Your task to perform on an android device: When is my next appointment? Image 0: 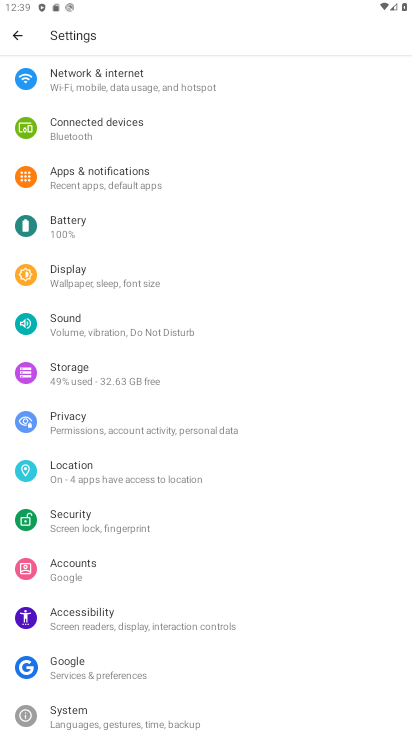
Step 0: press home button
Your task to perform on an android device: When is my next appointment? Image 1: 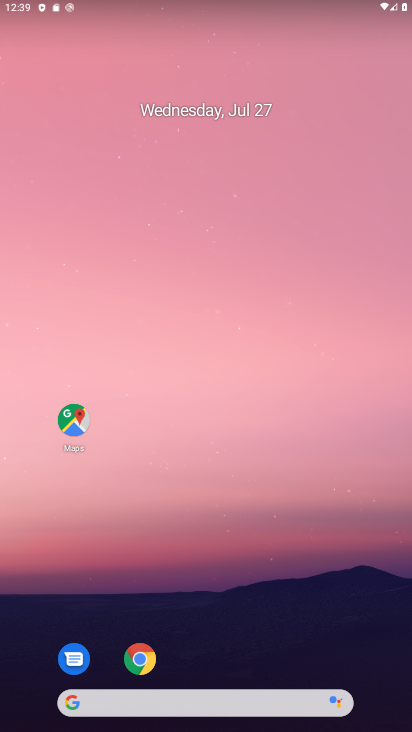
Step 1: drag from (301, 536) to (237, 4)
Your task to perform on an android device: When is my next appointment? Image 2: 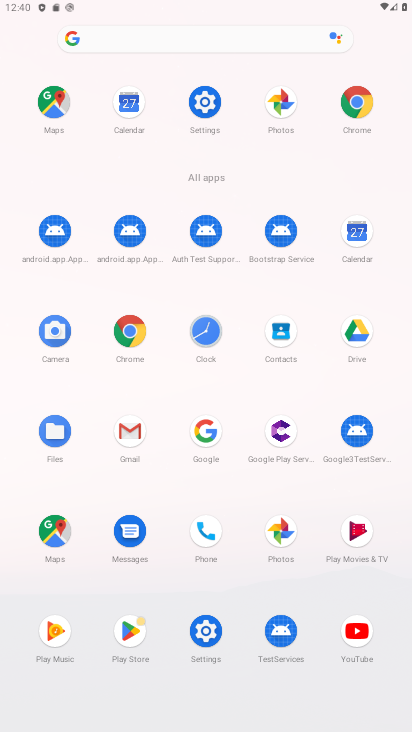
Step 2: click (358, 217)
Your task to perform on an android device: When is my next appointment? Image 3: 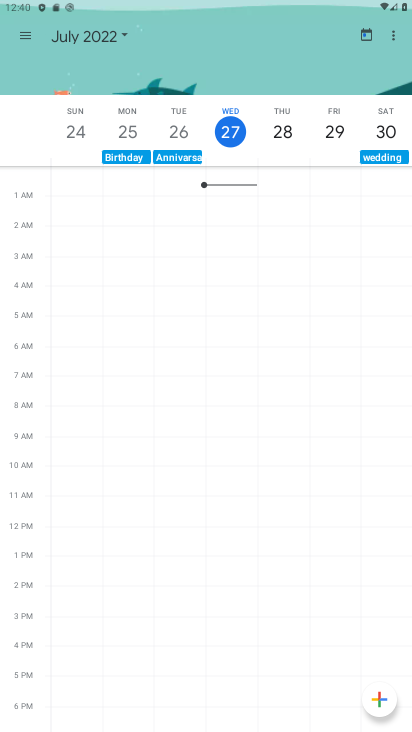
Step 3: task complete